Your task to perform on an android device: toggle location history Image 0: 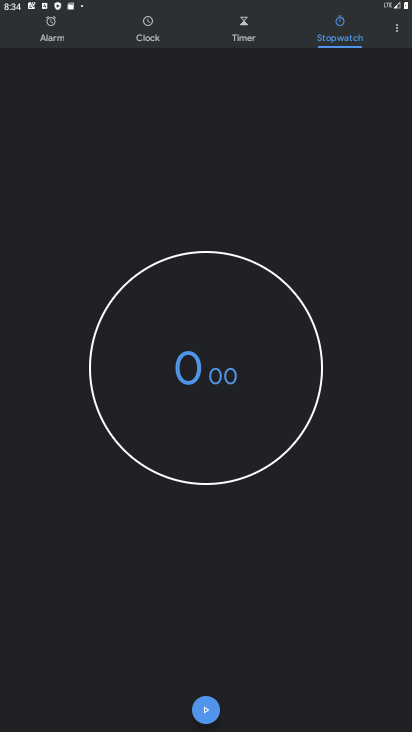
Step 0: press home button
Your task to perform on an android device: toggle location history Image 1: 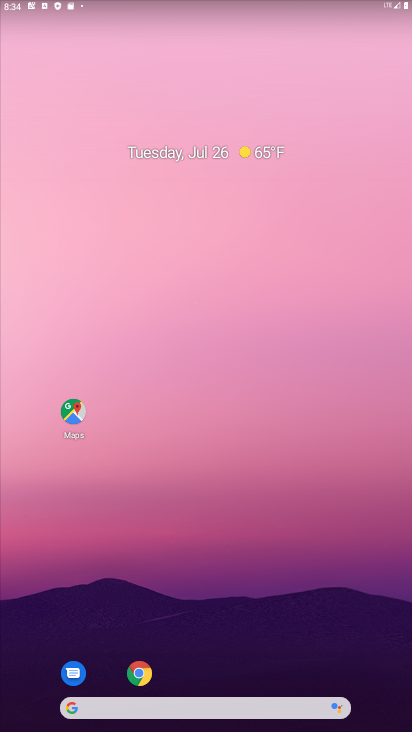
Step 1: drag from (232, 668) to (254, 208)
Your task to perform on an android device: toggle location history Image 2: 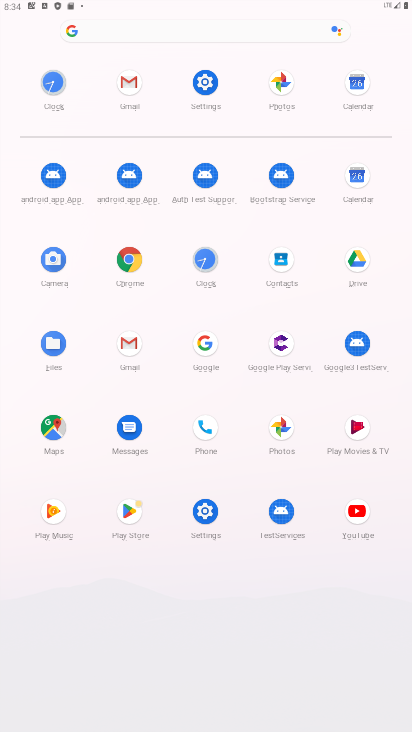
Step 2: click (200, 77)
Your task to perform on an android device: toggle location history Image 3: 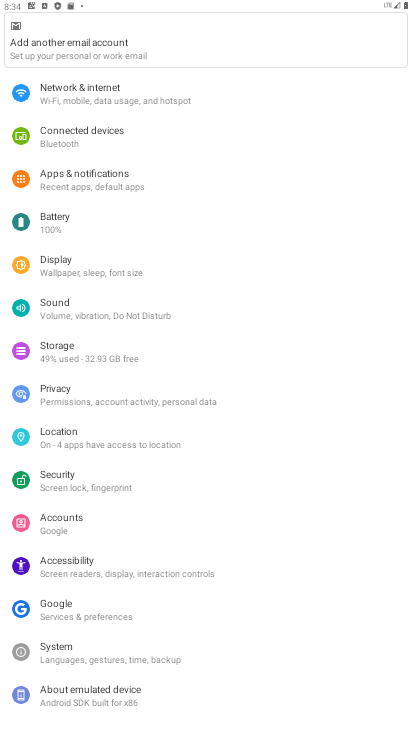
Step 3: click (77, 452)
Your task to perform on an android device: toggle location history Image 4: 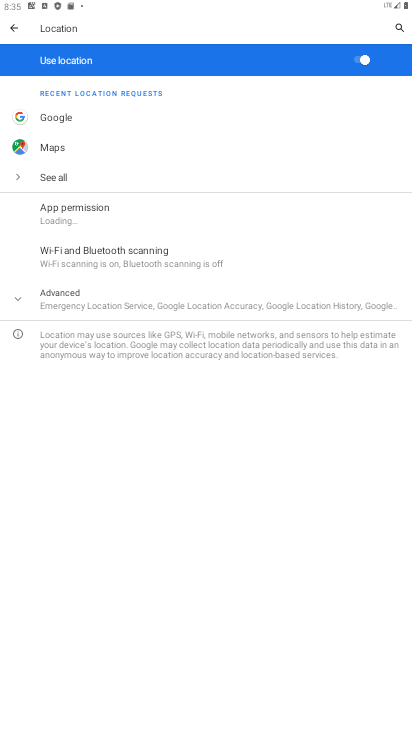
Step 4: click (121, 305)
Your task to perform on an android device: toggle location history Image 5: 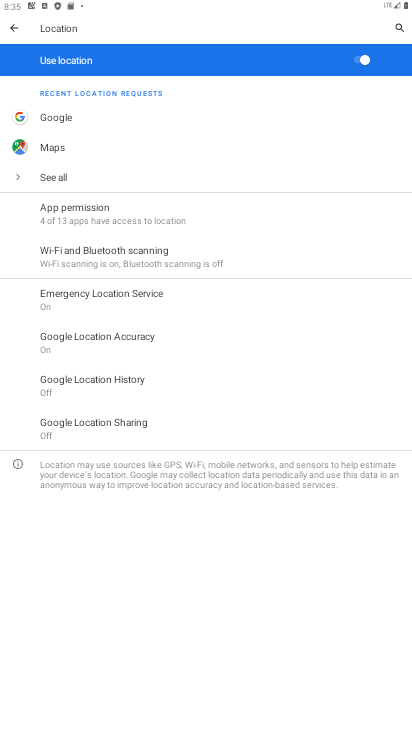
Step 5: click (138, 391)
Your task to perform on an android device: toggle location history Image 6: 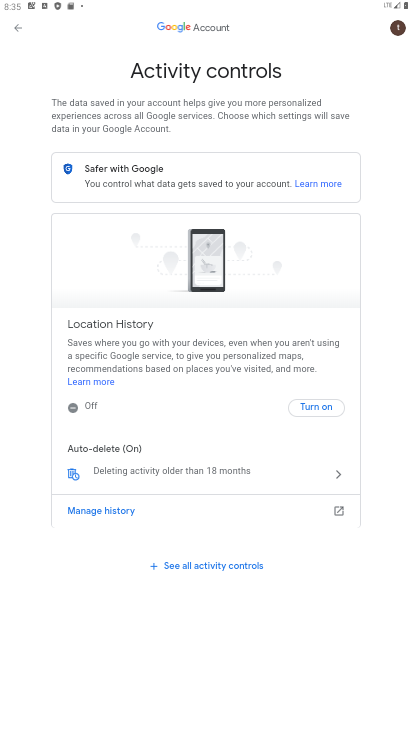
Step 6: click (315, 410)
Your task to perform on an android device: toggle location history Image 7: 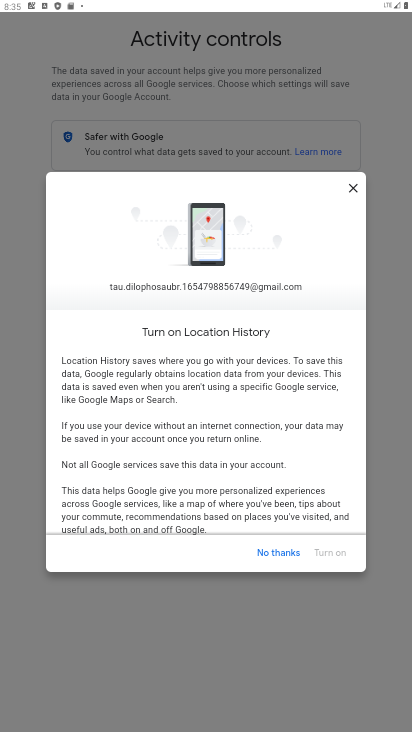
Step 7: drag from (287, 502) to (289, 241)
Your task to perform on an android device: toggle location history Image 8: 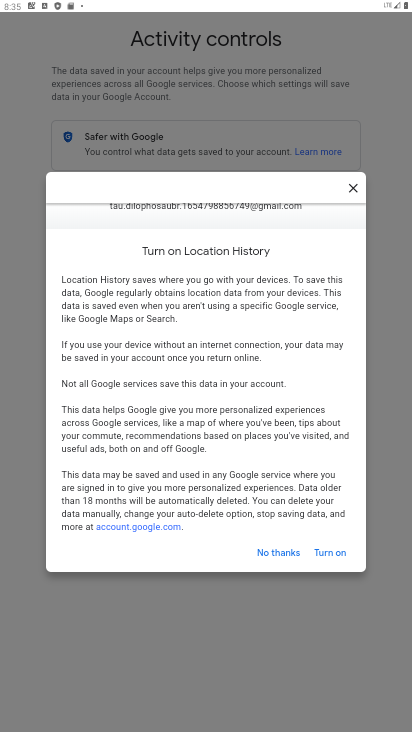
Step 8: drag from (285, 487) to (281, 178)
Your task to perform on an android device: toggle location history Image 9: 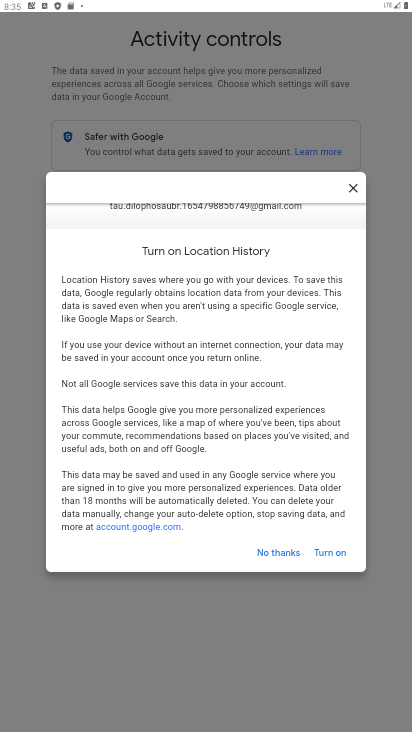
Step 9: click (327, 542)
Your task to perform on an android device: toggle location history Image 10: 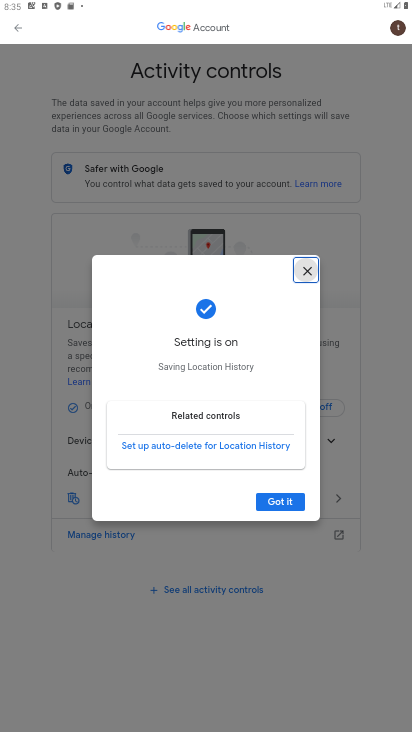
Step 10: task complete